Your task to perform on an android device: toggle data saver in the chrome app Image 0: 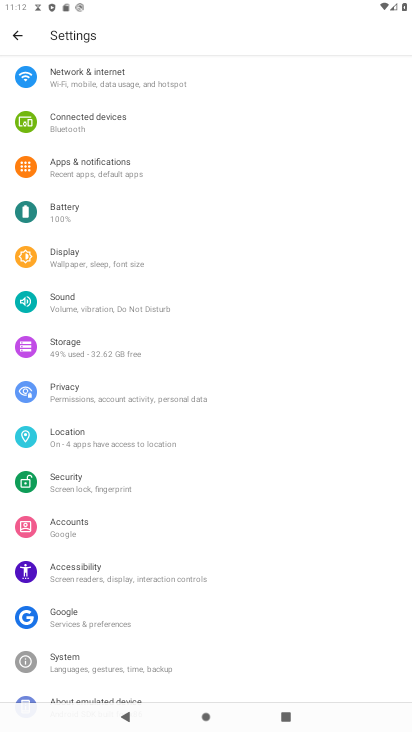
Step 0: press home button
Your task to perform on an android device: toggle data saver in the chrome app Image 1: 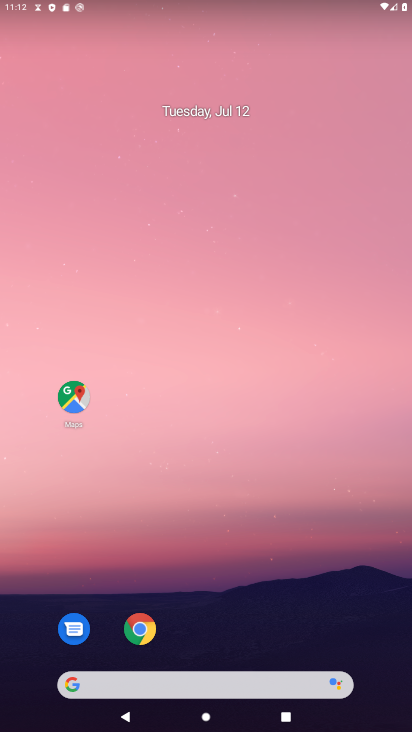
Step 1: drag from (294, 632) to (373, 9)
Your task to perform on an android device: toggle data saver in the chrome app Image 2: 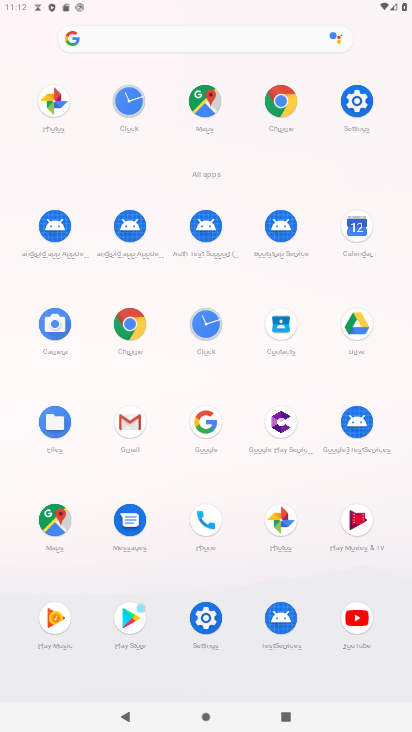
Step 2: click (280, 109)
Your task to perform on an android device: toggle data saver in the chrome app Image 3: 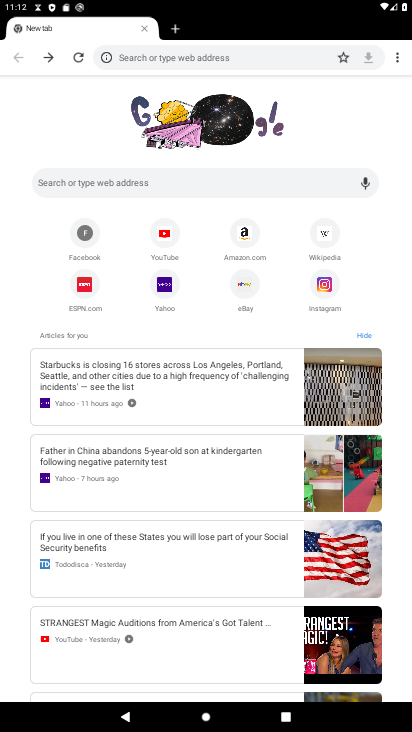
Step 3: drag from (400, 65) to (298, 255)
Your task to perform on an android device: toggle data saver in the chrome app Image 4: 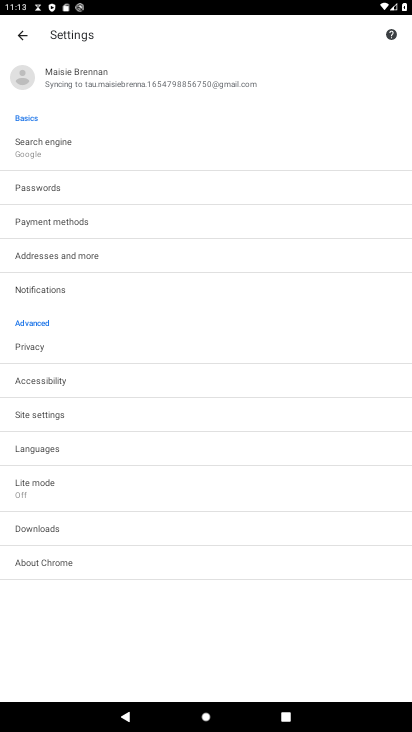
Step 4: click (77, 479)
Your task to perform on an android device: toggle data saver in the chrome app Image 5: 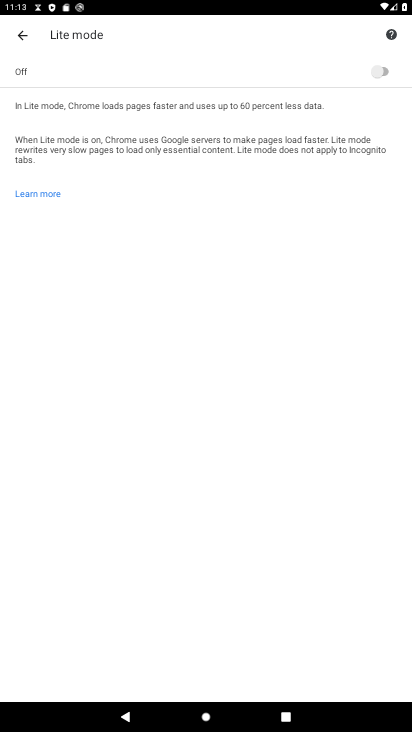
Step 5: click (374, 81)
Your task to perform on an android device: toggle data saver in the chrome app Image 6: 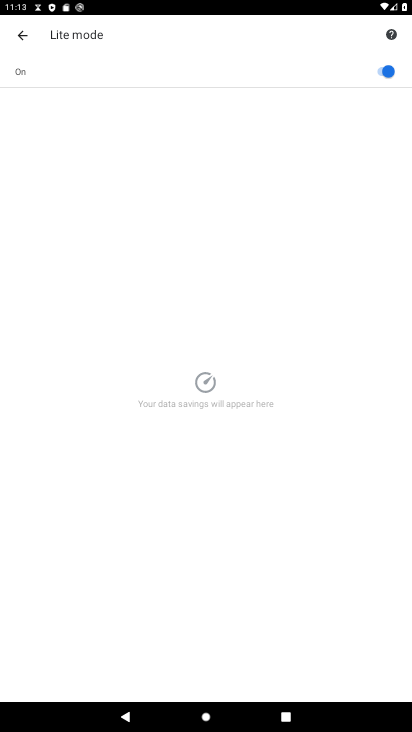
Step 6: task complete